Your task to perform on an android device: toggle notifications settings in the gmail app Image 0: 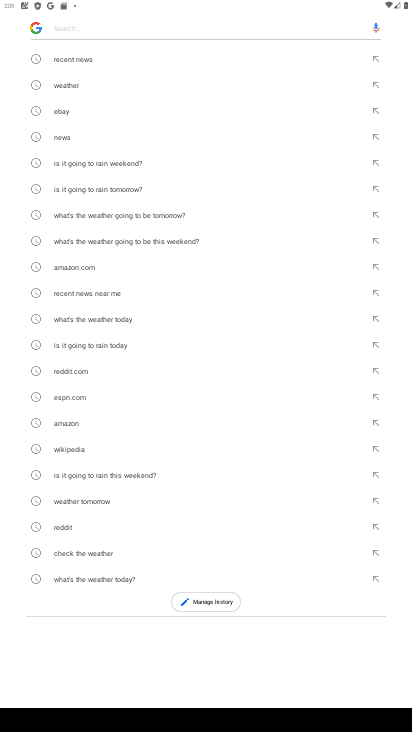
Step 0: press home button
Your task to perform on an android device: toggle notifications settings in the gmail app Image 1: 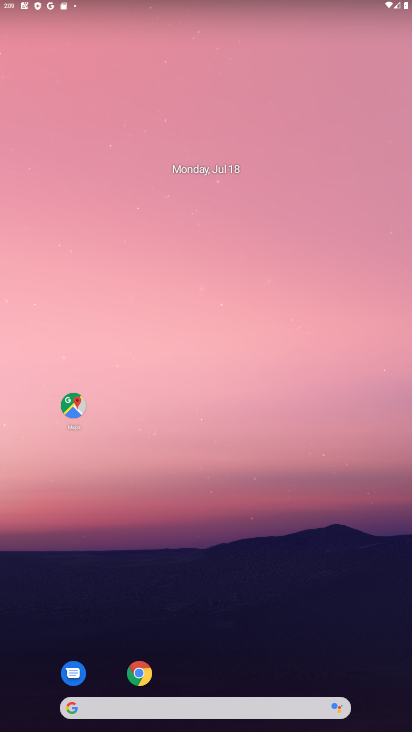
Step 1: drag from (191, 707) to (183, 281)
Your task to perform on an android device: toggle notifications settings in the gmail app Image 2: 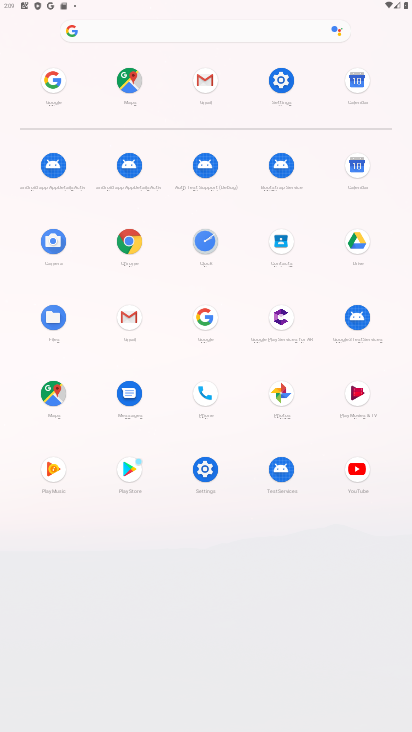
Step 2: click (205, 80)
Your task to perform on an android device: toggle notifications settings in the gmail app Image 3: 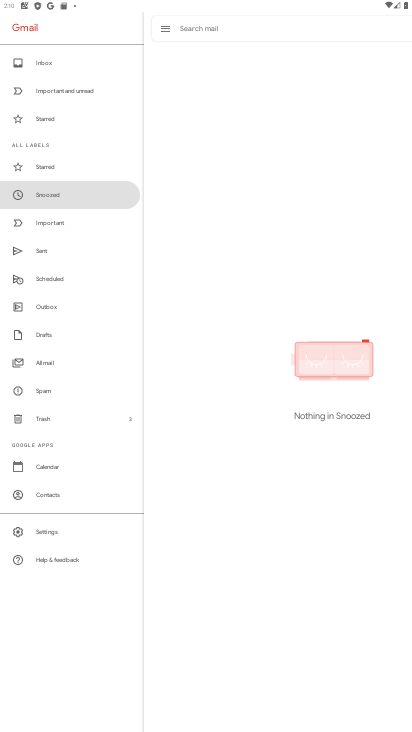
Step 3: click (46, 531)
Your task to perform on an android device: toggle notifications settings in the gmail app Image 4: 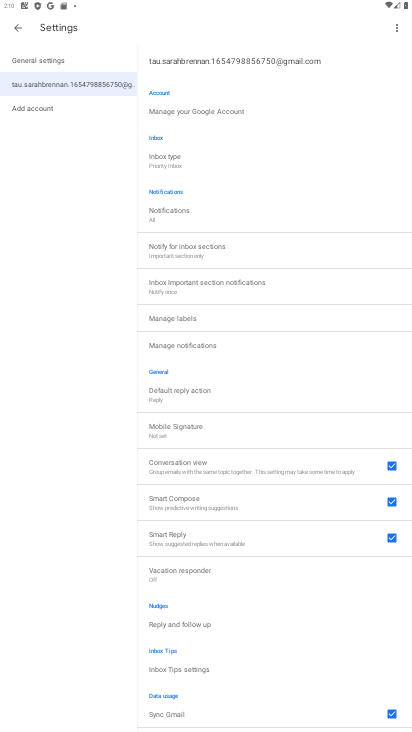
Step 4: click (185, 348)
Your task to perform on an android device: toggle notifications settings in the gmail app Image 5: 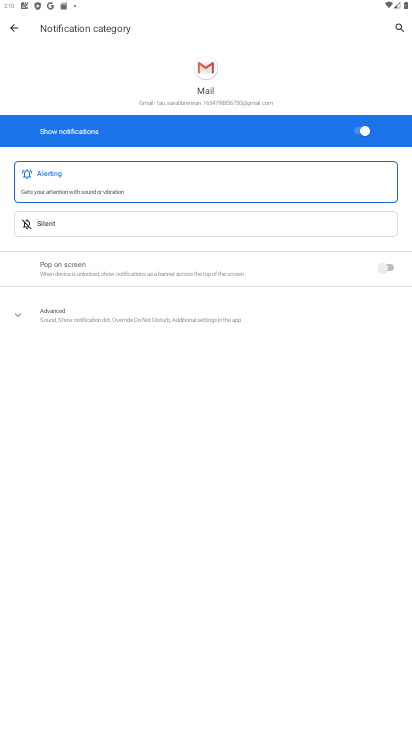
Step 5: click (361, 135)
Your task to perform on an android device: toggle notifications settings in the gmail app Image 6: 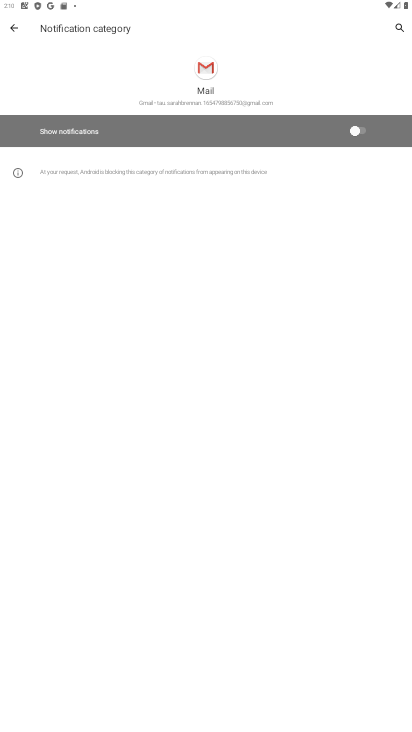
Step 6: task complete